Your task to perform on an android device: Go to CNN.com Image 0: 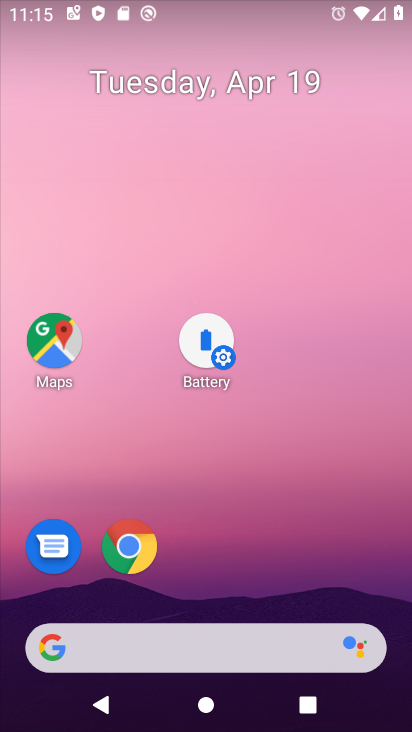
Step 0: click (138, 551)
Your task to perform on an android device: Go to CNN.com Image 1: 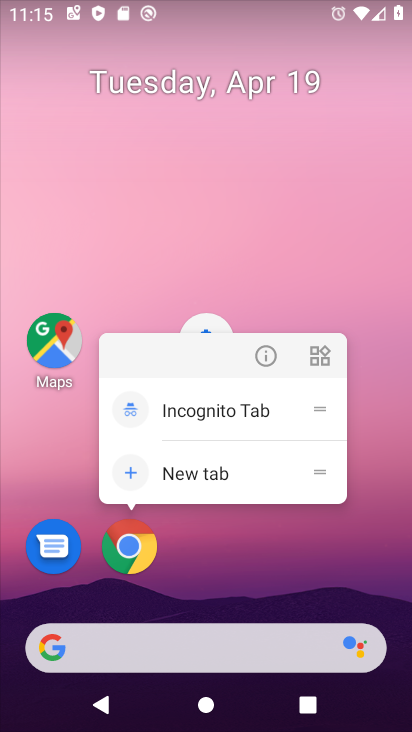
Step 1: click (127, 541)
Your task to perform on an android device: Go to CNN.com Image 2: 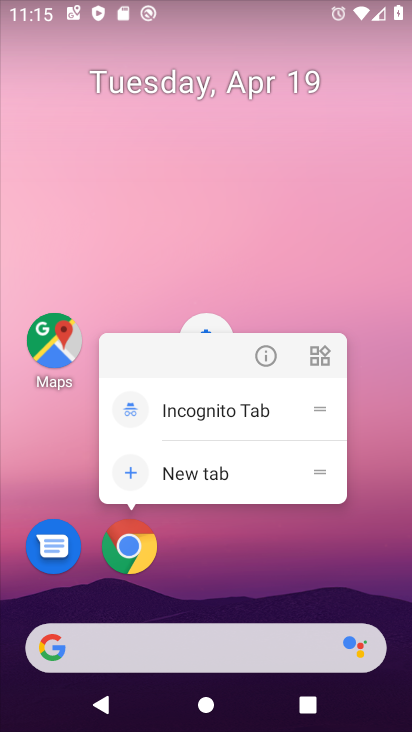
Step 2: click (135, 549)
Your task to perform on an android device: Go to CNN.com Image 3: 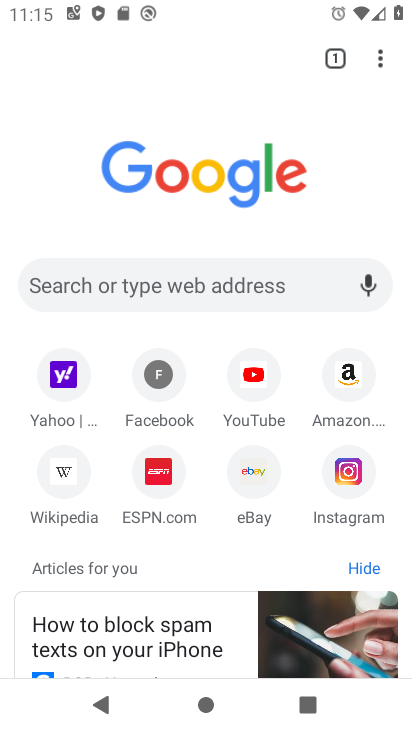
Step 3: click (143, 271)
Your task to perform on an android device: Go to CNN.com Image 4: 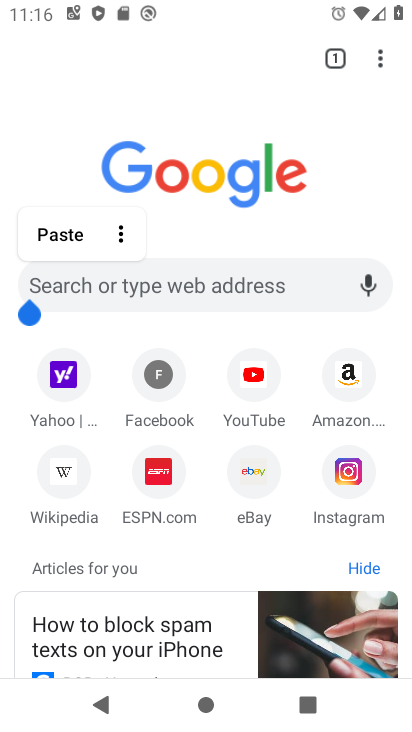
Step 4: click (246, 277)
Your task to perform on an android device: Go to CNN.com Image 5: 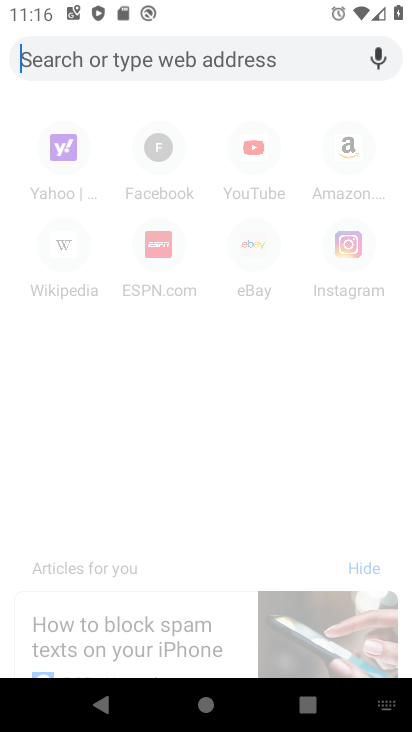
Step 5: type "cnn.com"
Your task to perform on an android device: Go to CNN.com Image 6: 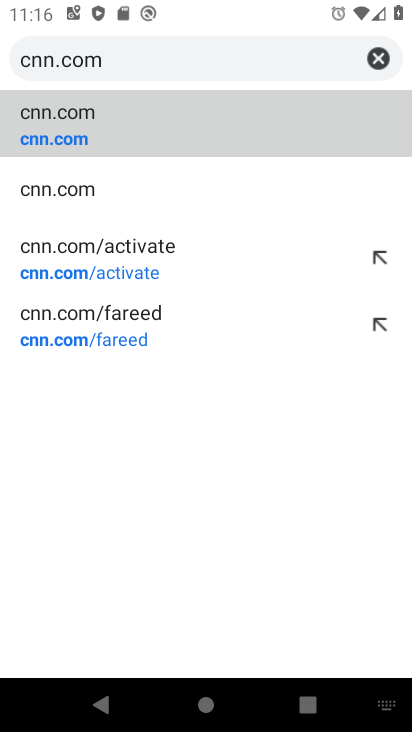
Step 6: click (52, 131)
Your task to perform on an android device: Go to CNN.com Image 7: 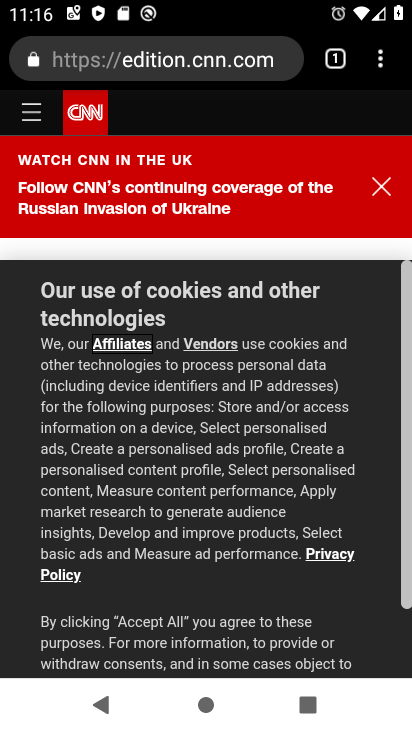
Step 7: task complete